Your task to perform on an android device: Open location settings Image 0: 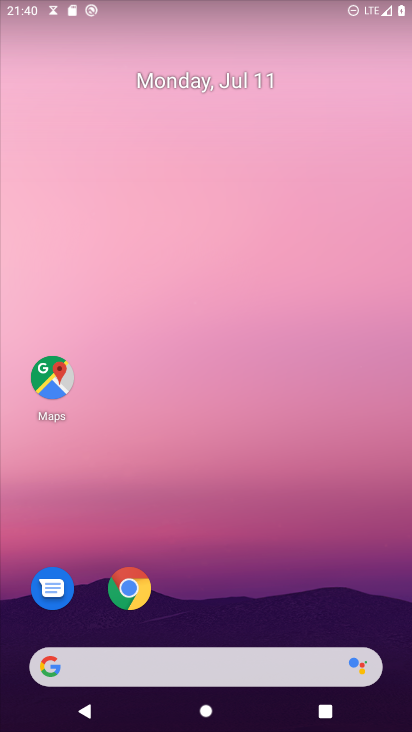
Step 0: drag from (244, 544) to (243, 103)
Your task to perform on an android device: Open location settings Image 1: 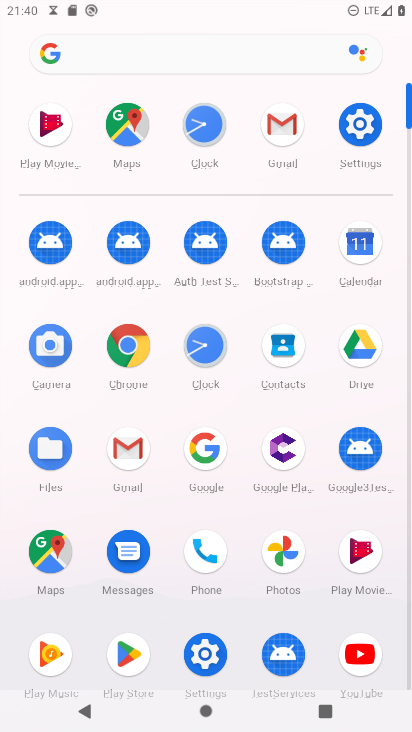
Step 1: click (363, 135)
Your task to perform on an android device: Open location settings Image 2: 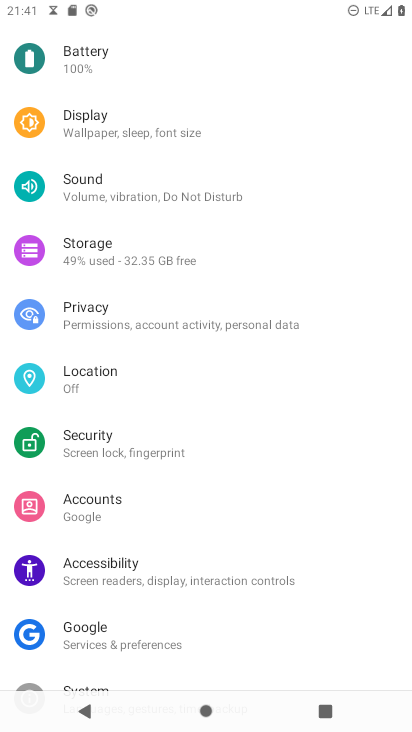
Step 2: click (73, 374)
Your task to perform on an android device: Open location settings Image 3: 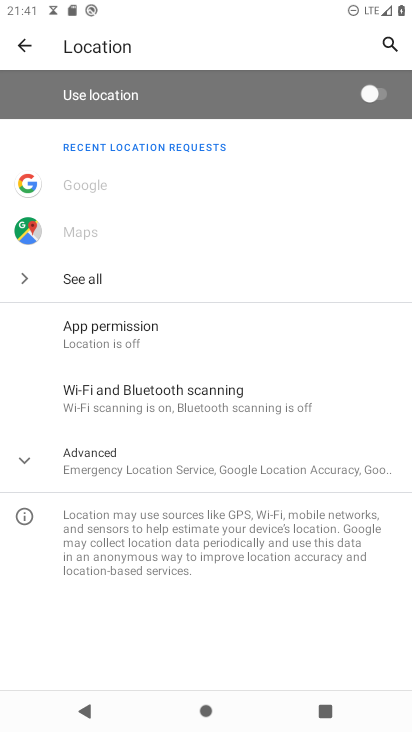
Step 3: task complete